Your task to perform on an android device: turn on bluetooth scan Image 0: 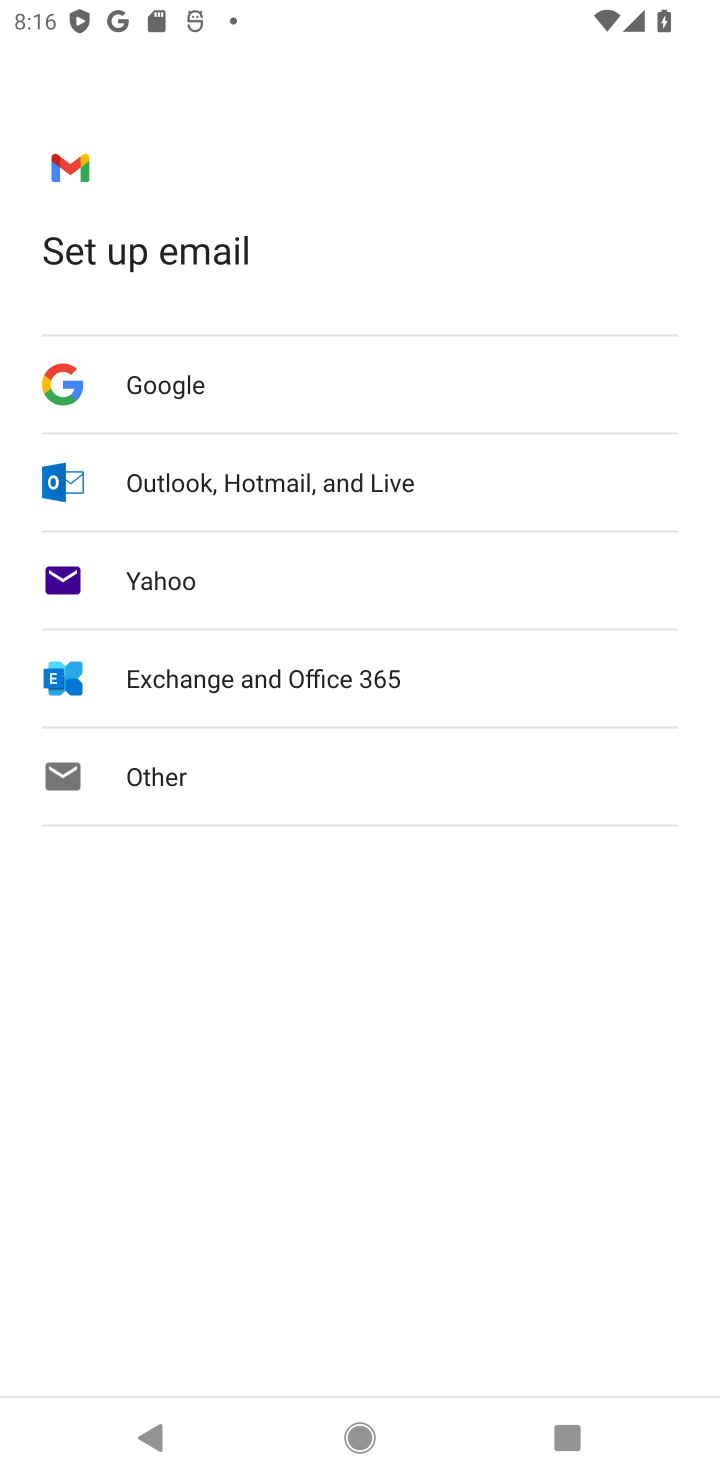
Step 0: click (351, 1440)
Your task to perform on an android device: turn on bluetooth scan Image 1: 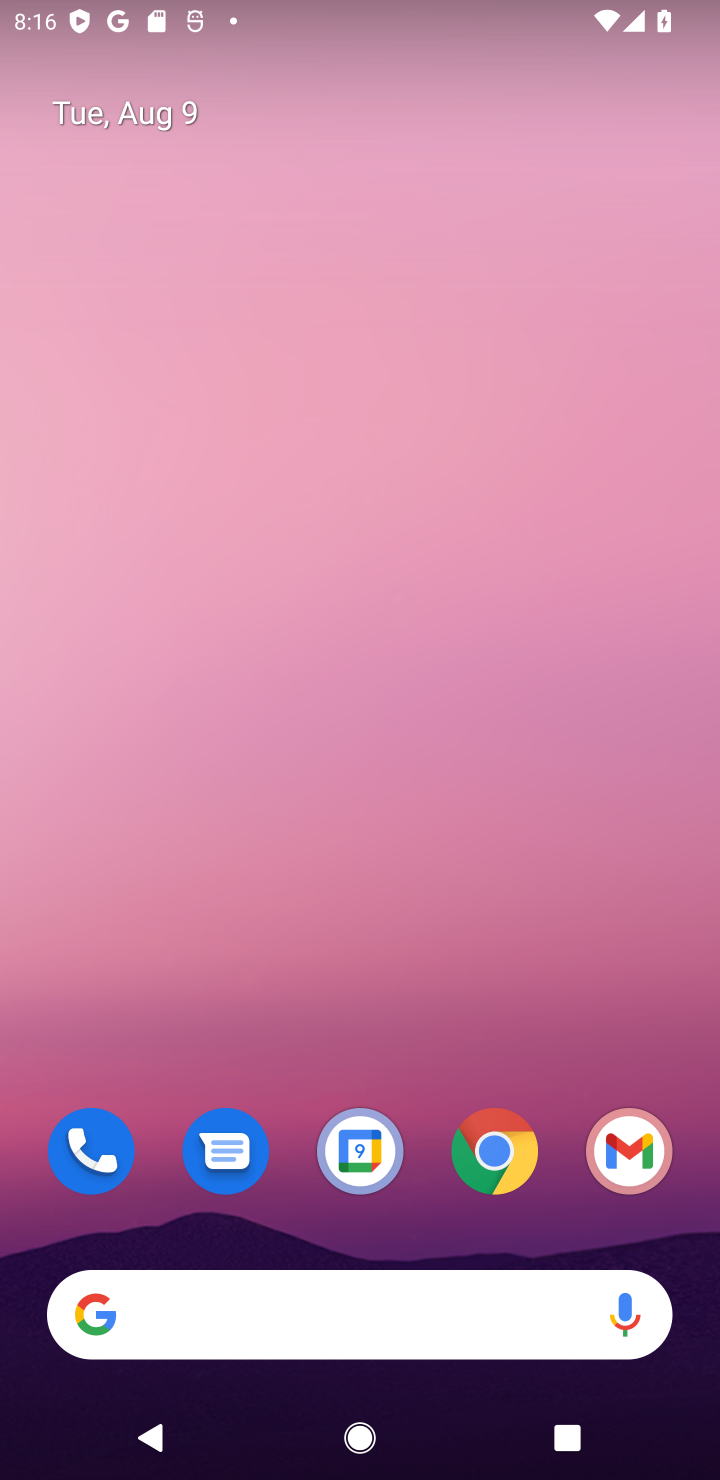
Step 1: drag from (278, 1238) to (404, 204)
Your task to perform on an android device: turn on bluetooth scan Image 2: 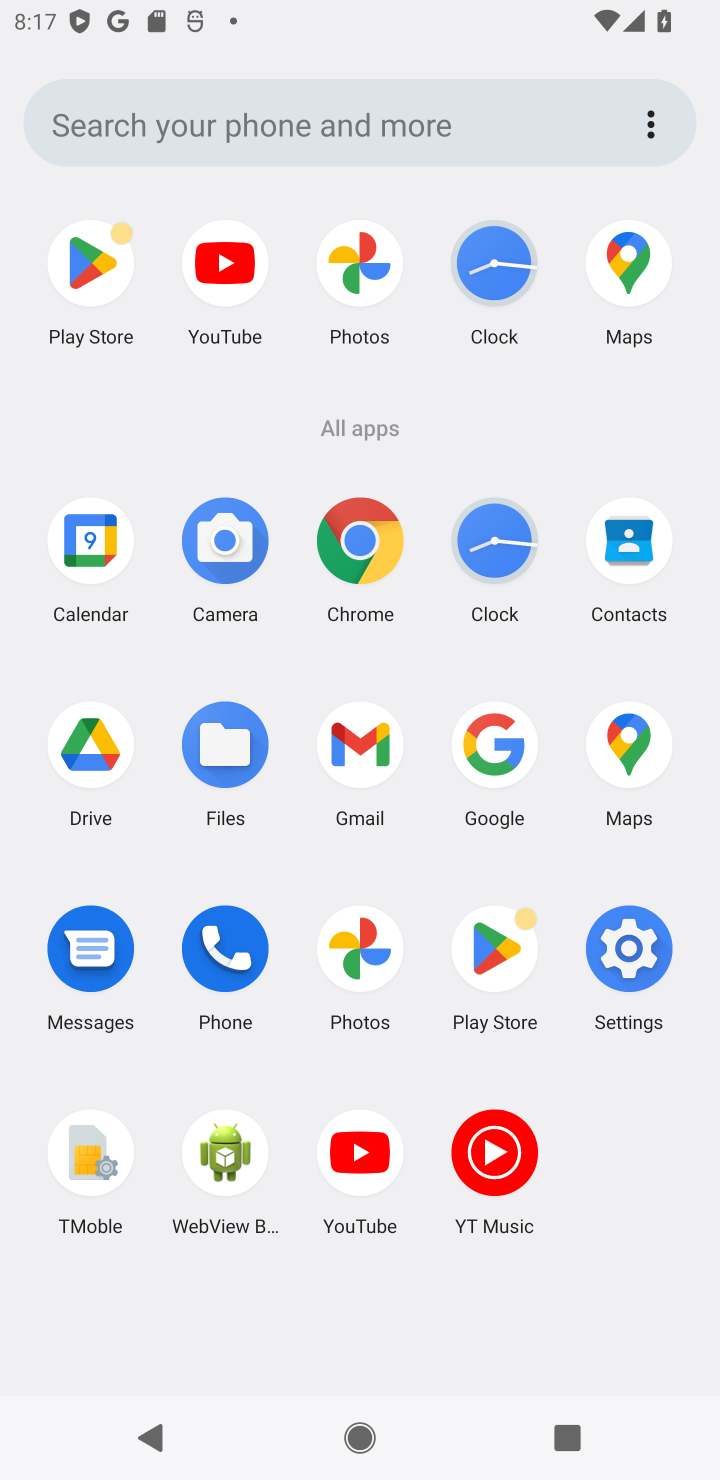
Step 2: click (627, 961)
Your task to perform on an android device: turn on bluetooth scan Image 3: 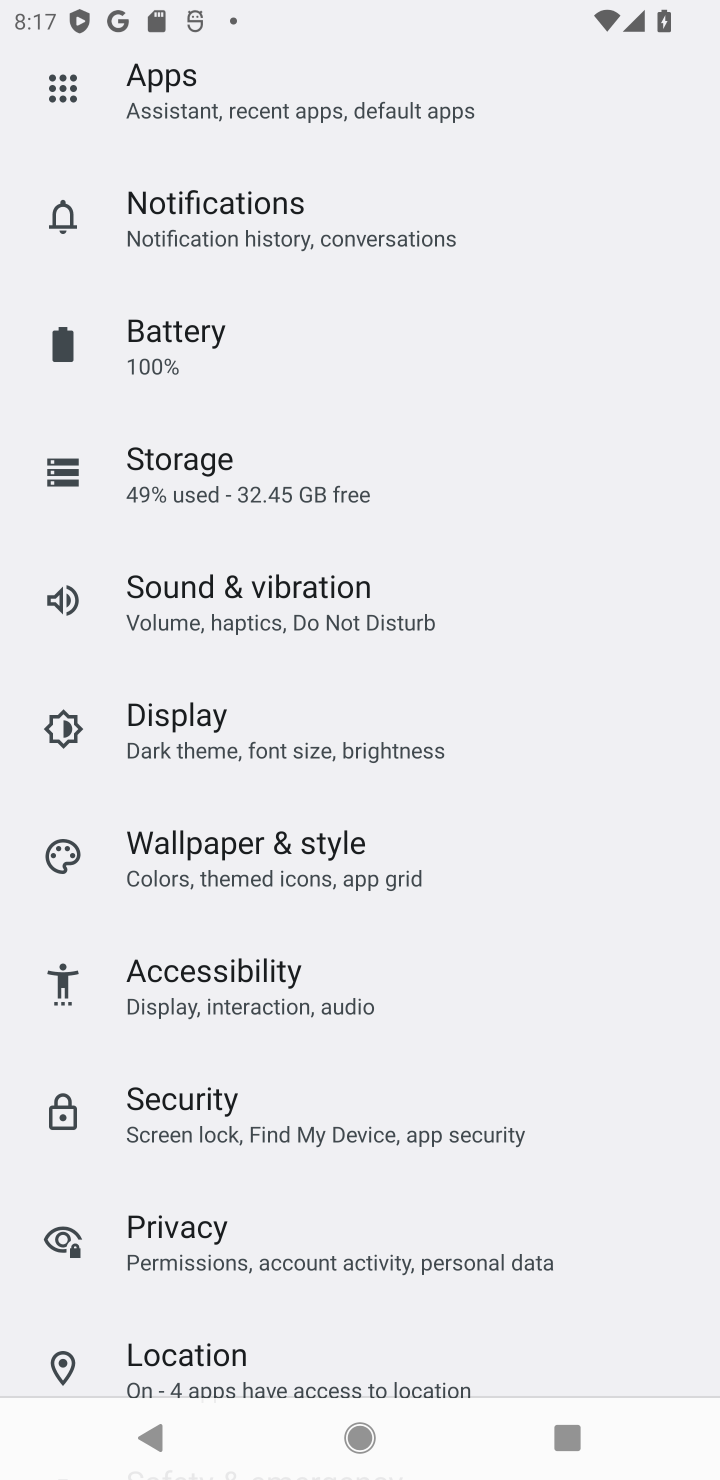
Step 3: drag from (550, 298) to (558, 846)
Your task to perform on an android device: turn on bluetooth scan Image 4: 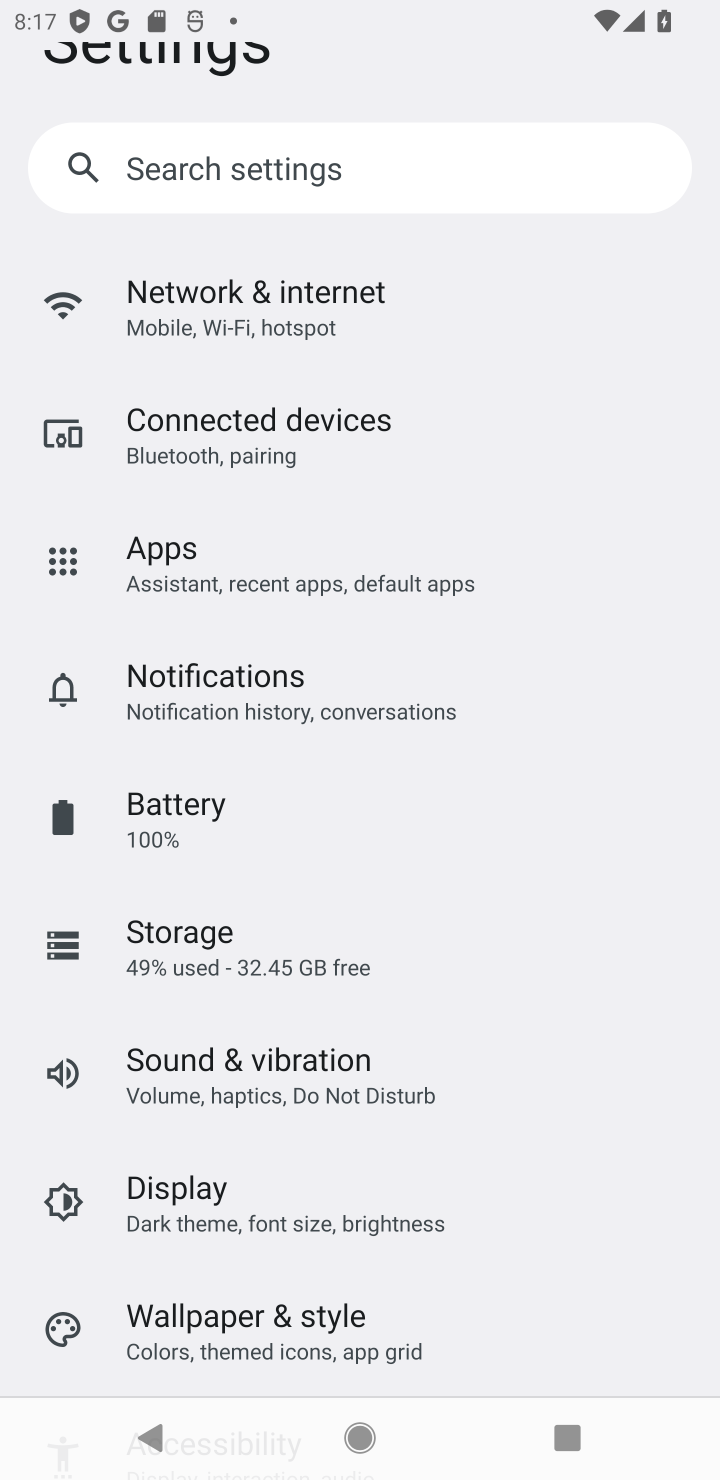
Step 4: click (266, 426)
Your task to perform on an android device: turn on bluetooth scan Image 5: 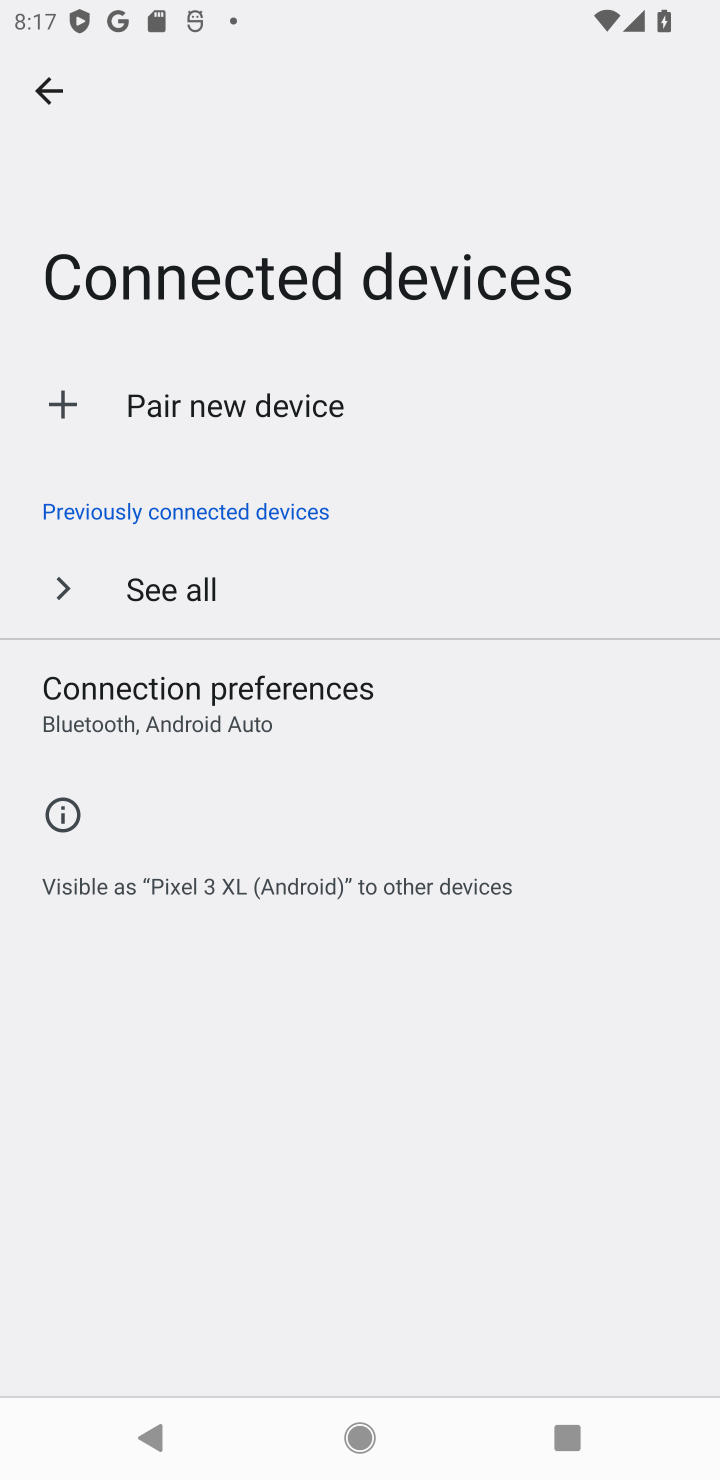
Step 5: click (106, 714)
Your task to perform on an android device: turn on bluetooth scan Image 6: 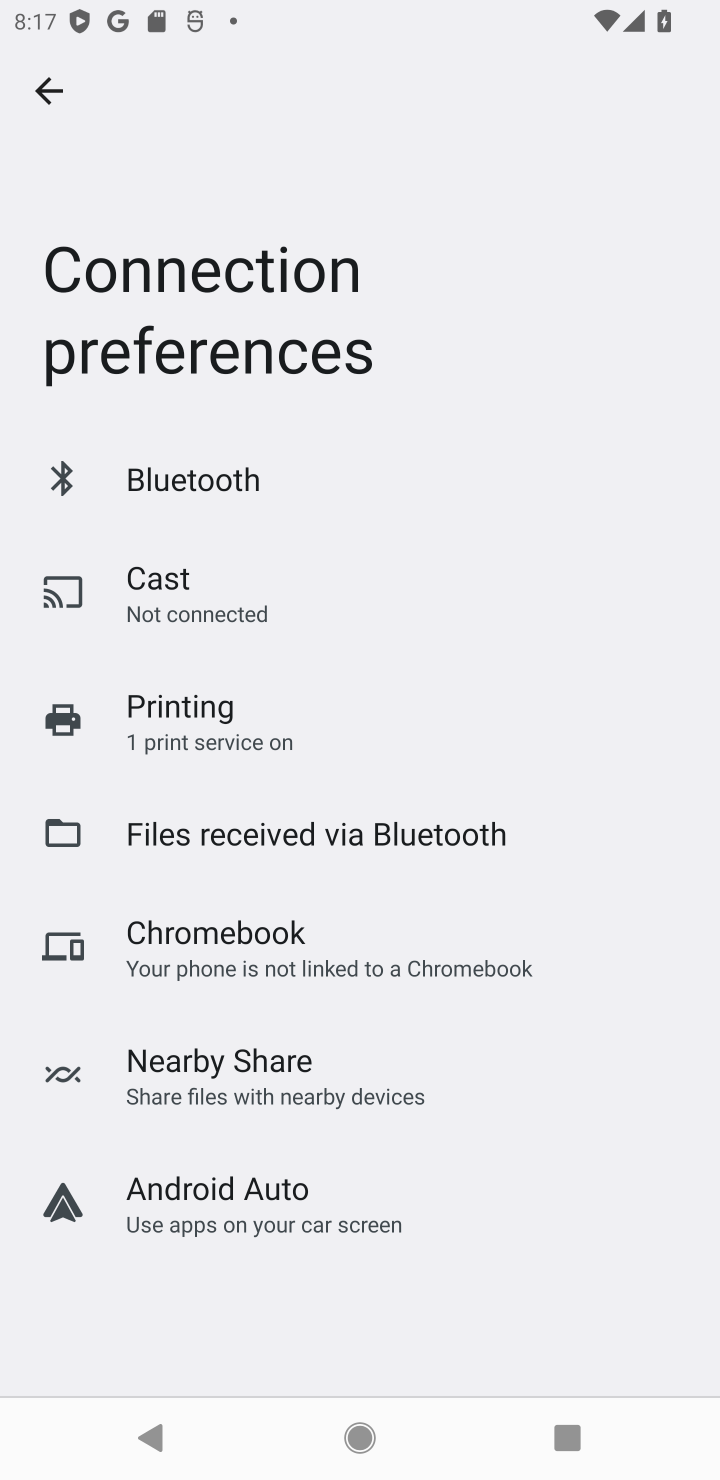
Step 6: click (158, 465)
Your task to perform on an android device: turn on bluetooth scan Image 7: 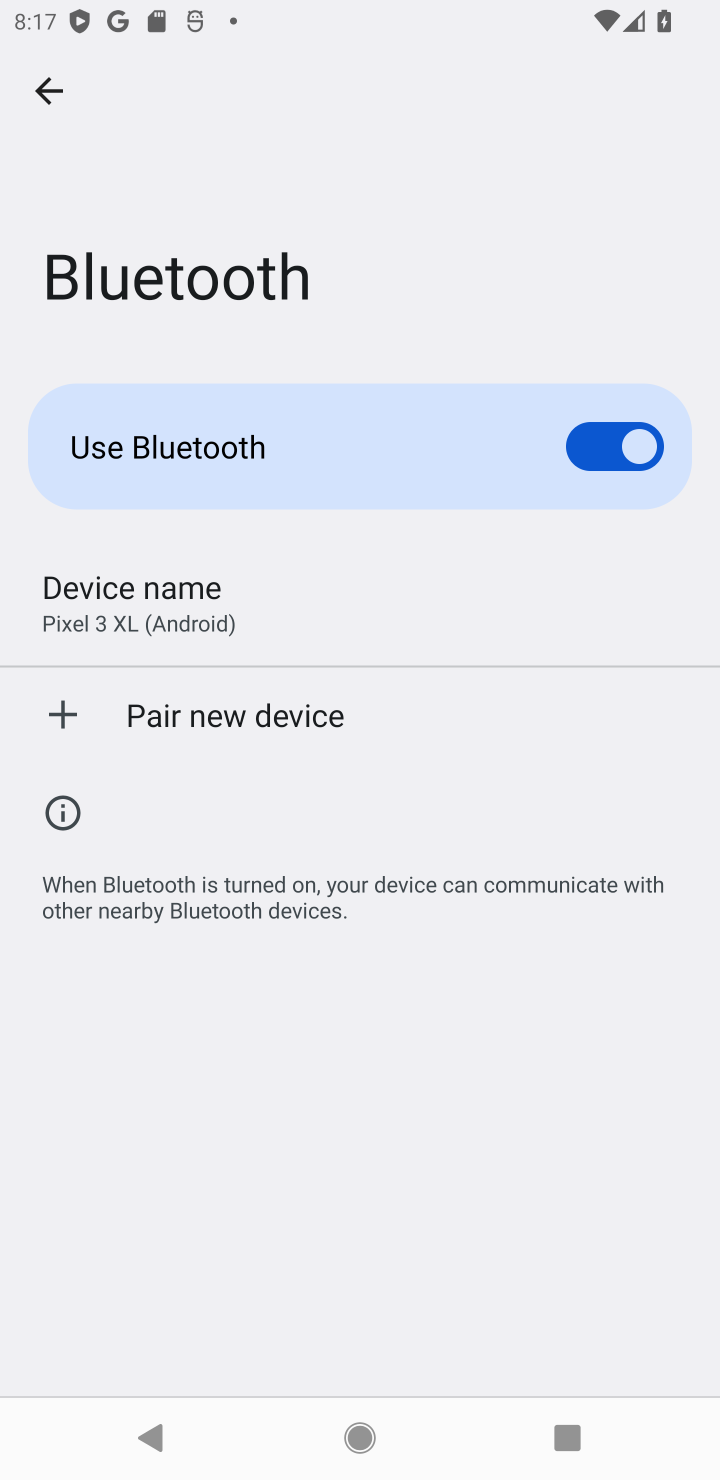
Step 7: click (44, 81)
Your task to perform on an android device: turn on bluetooth scan Image 8: 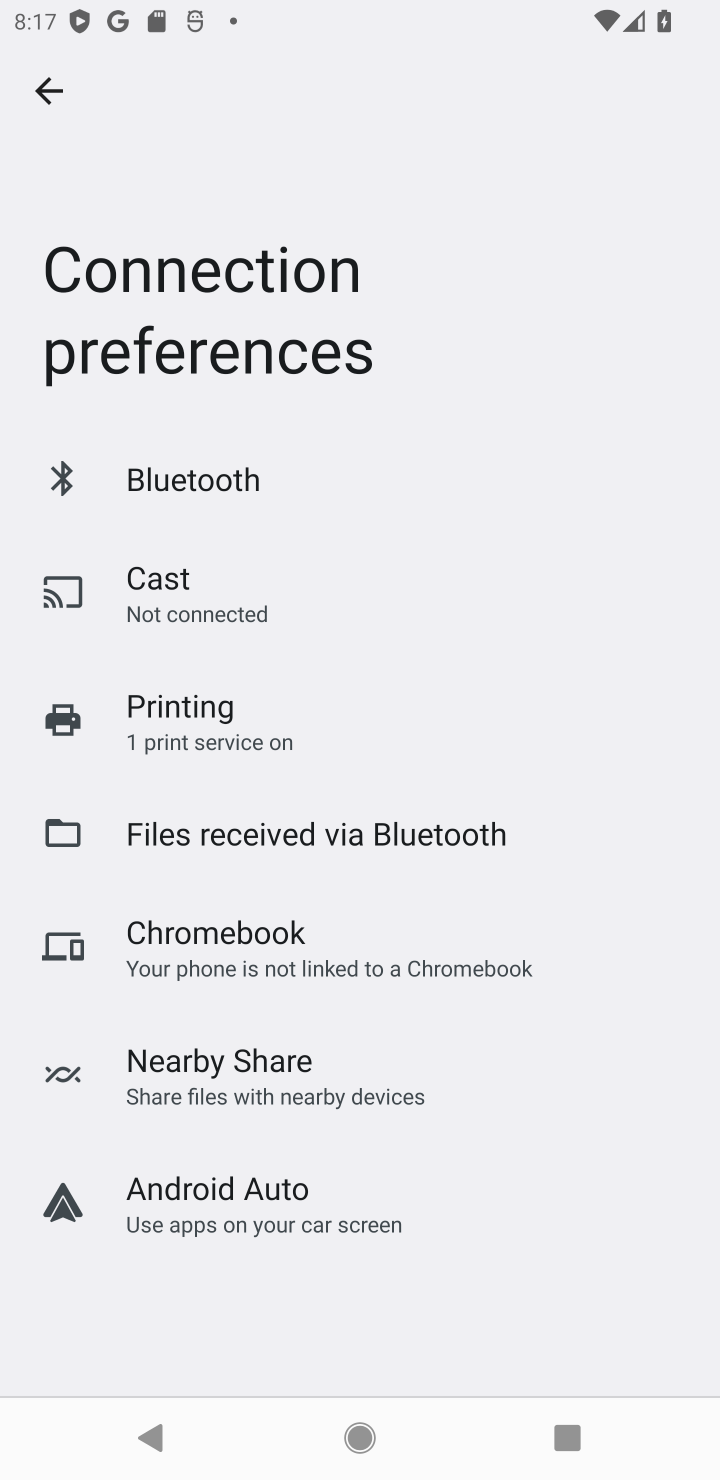
Step 8: click (51, 88)
Your task to perform on an android device: turn on bluetooth scan Image 9: 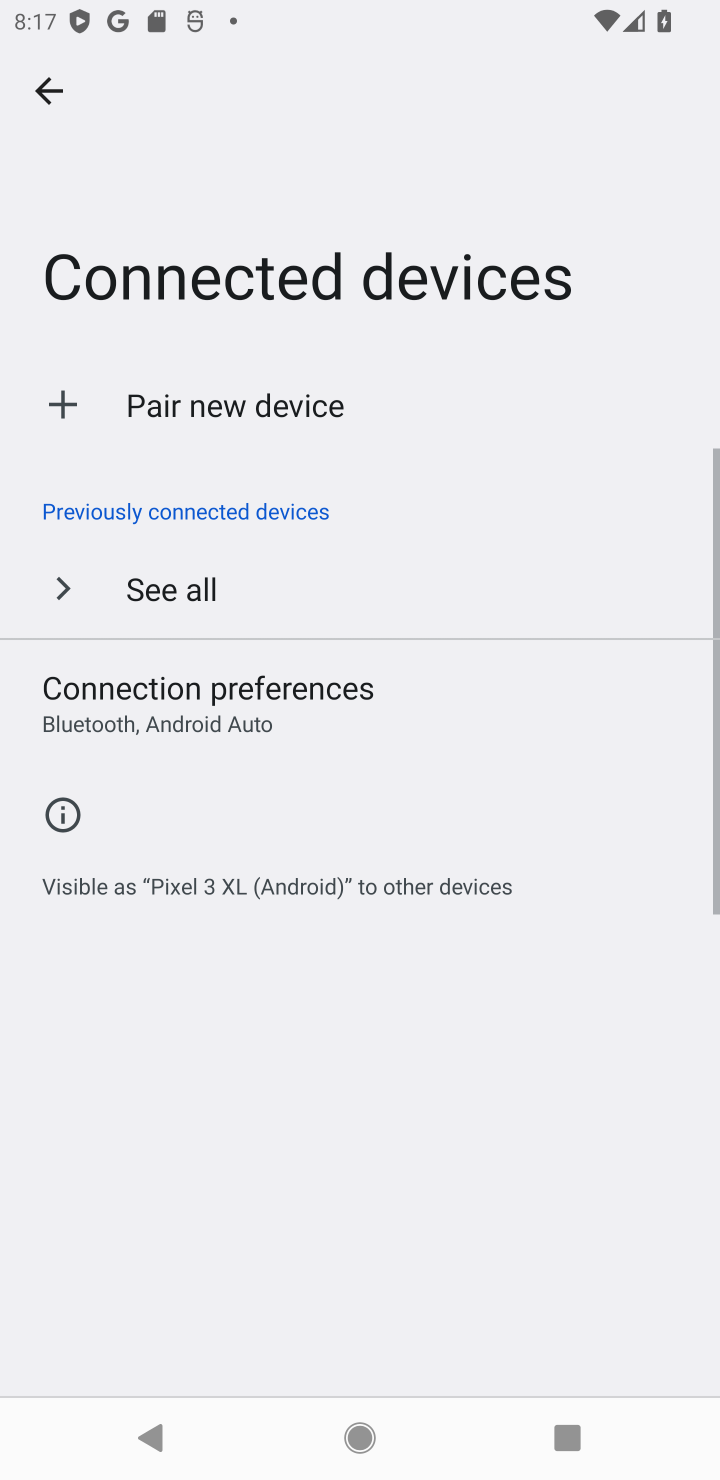
Step 9: click (51, 88)
Your task to perform on an android device: turn on bluetooth scan Image 10: 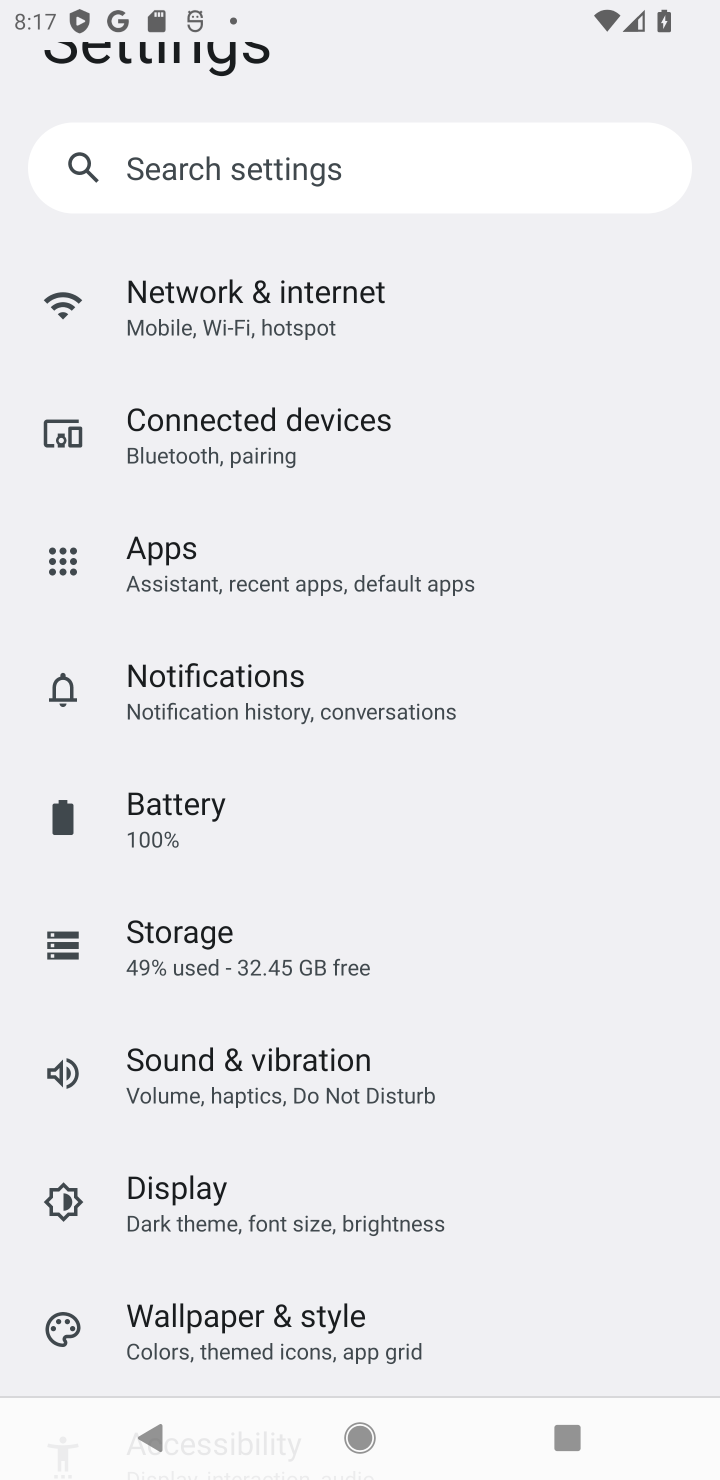
Step 10: click (226, 305)
Your task to perform on an android device: turn on bluetooth scan Image 11: 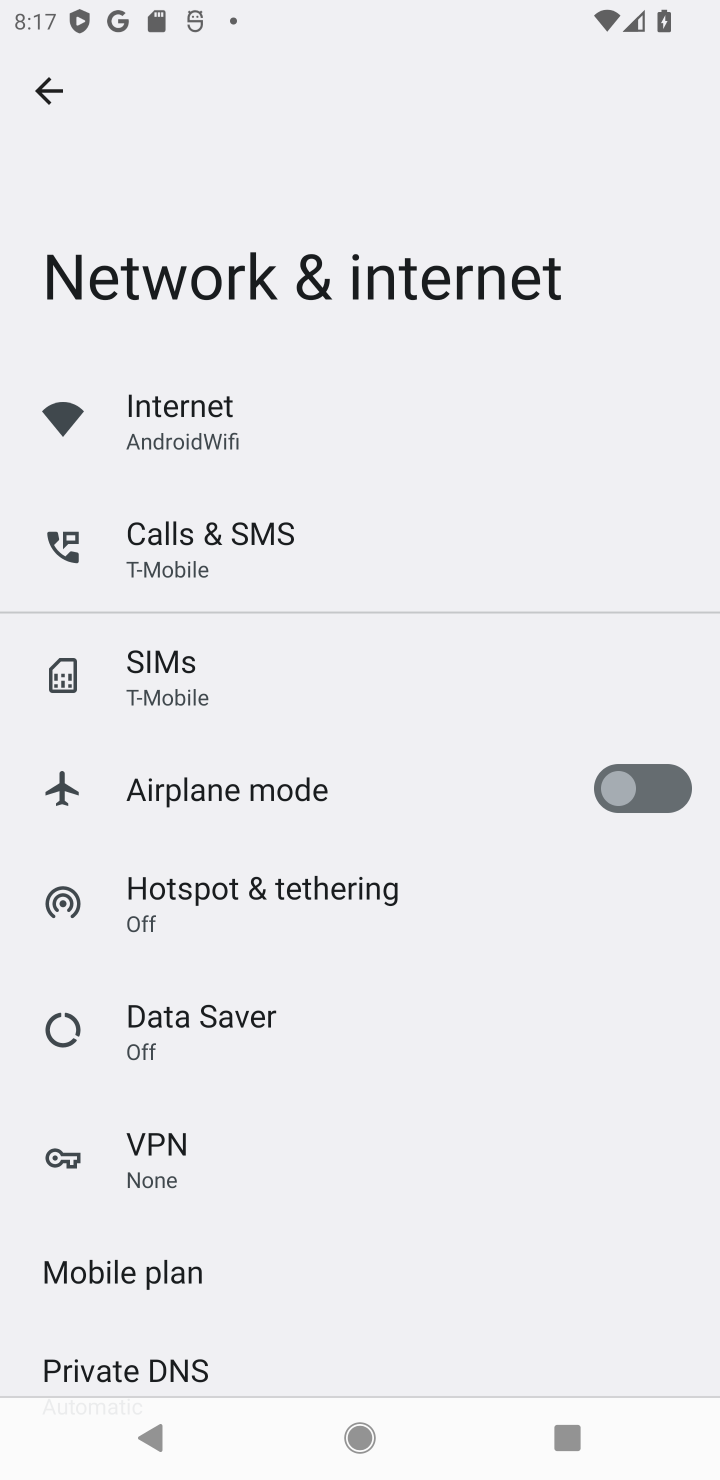
Step 11: drag from (366, 1142) to (379, 267)
Your task to perform on an android device: turn on bluetooth scan Image 12: 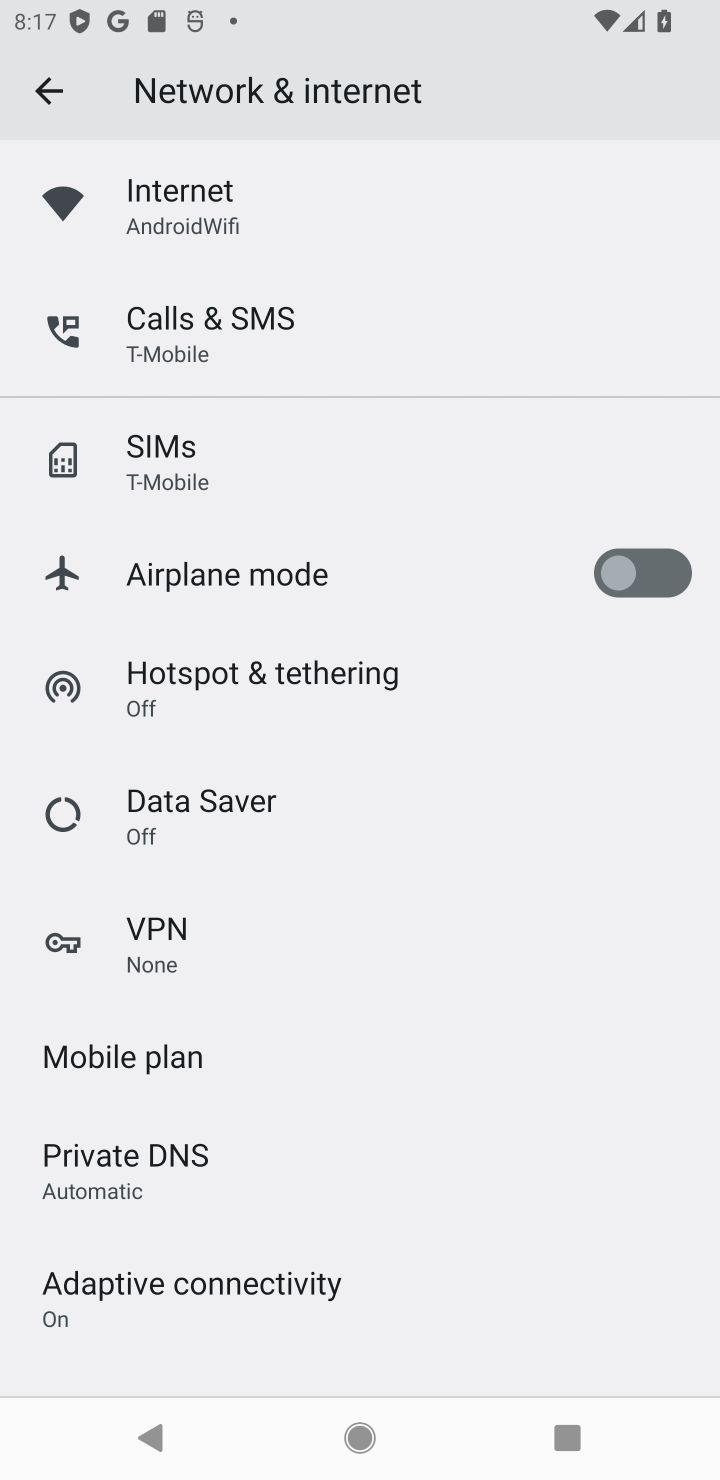
Step 12: drag from (449, 344) to (405, 1444)
Your task to perform on an android device: turn on bluetooth scan Image 13: 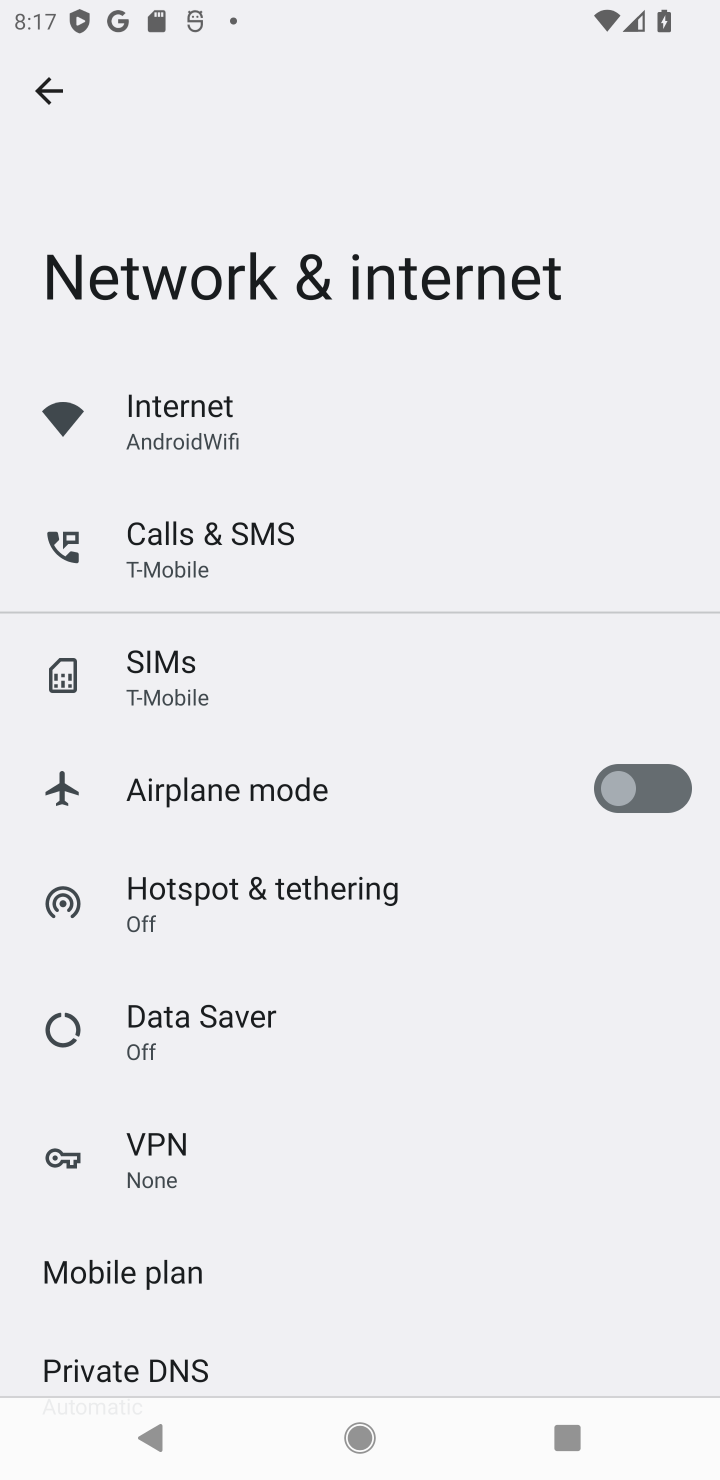
Step 13: click (45, 81)
Your task to perform on an android device: turn on bluetooth scan Image 14: 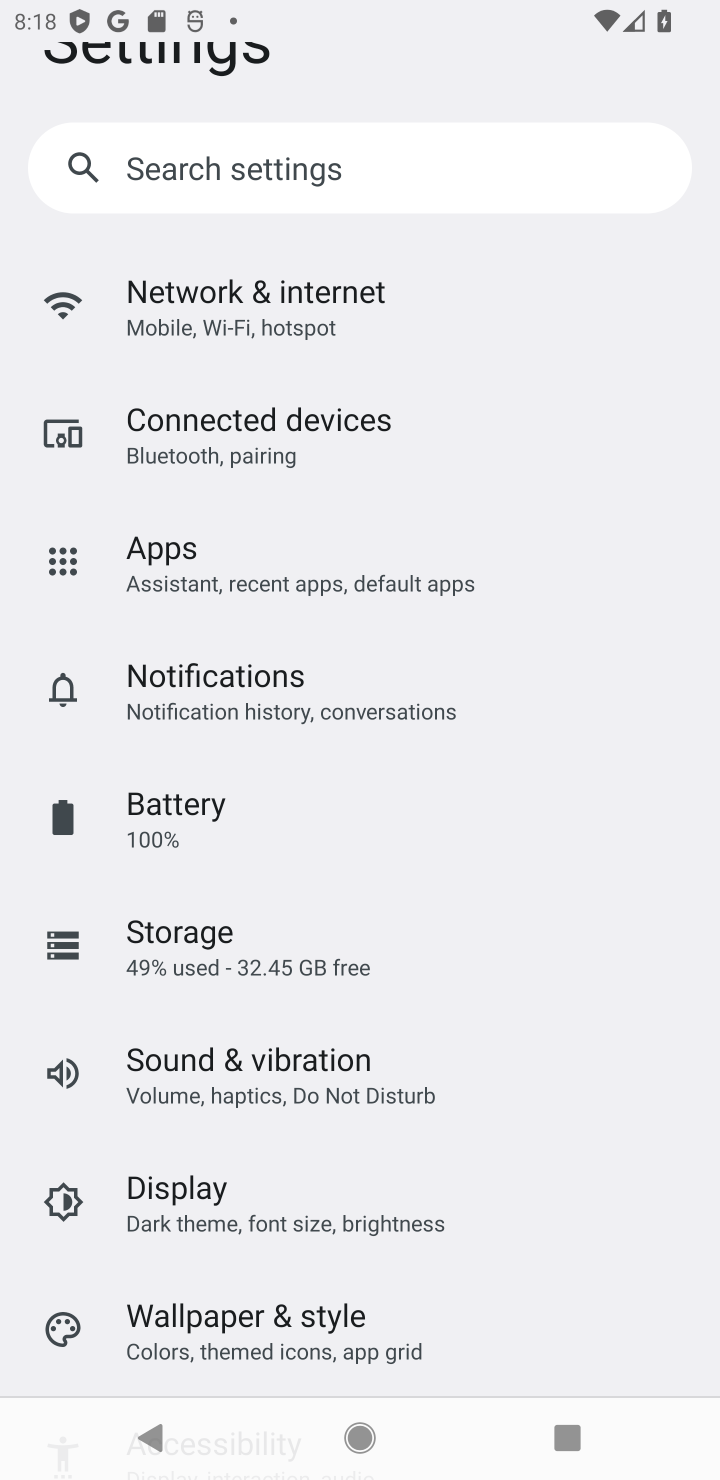
Step 14: click (198, 167)
Your task to perform on an android device: turn on bluetooth scan Image 15: 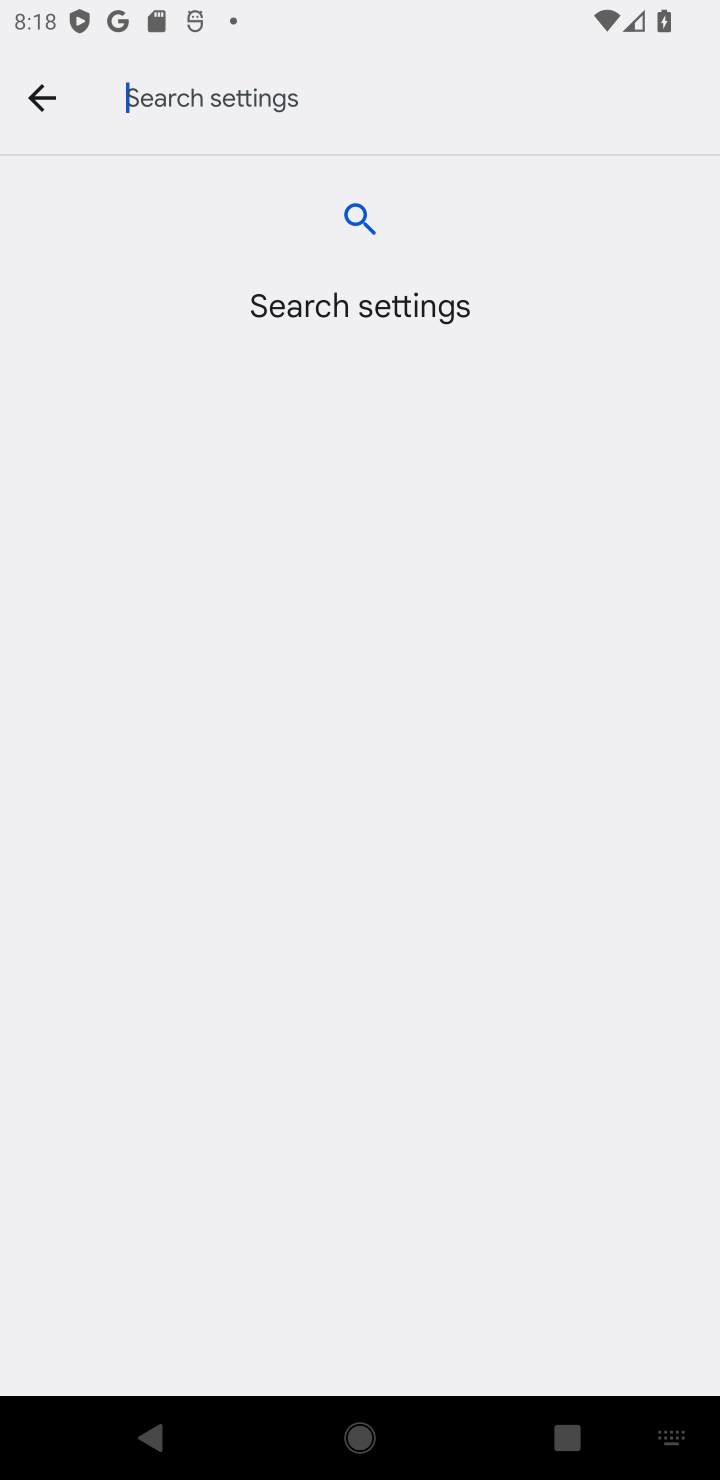
Step 15: type "bluetooth scan"
Your task to perform on an android device: turn on bluetooth scan Image 16: 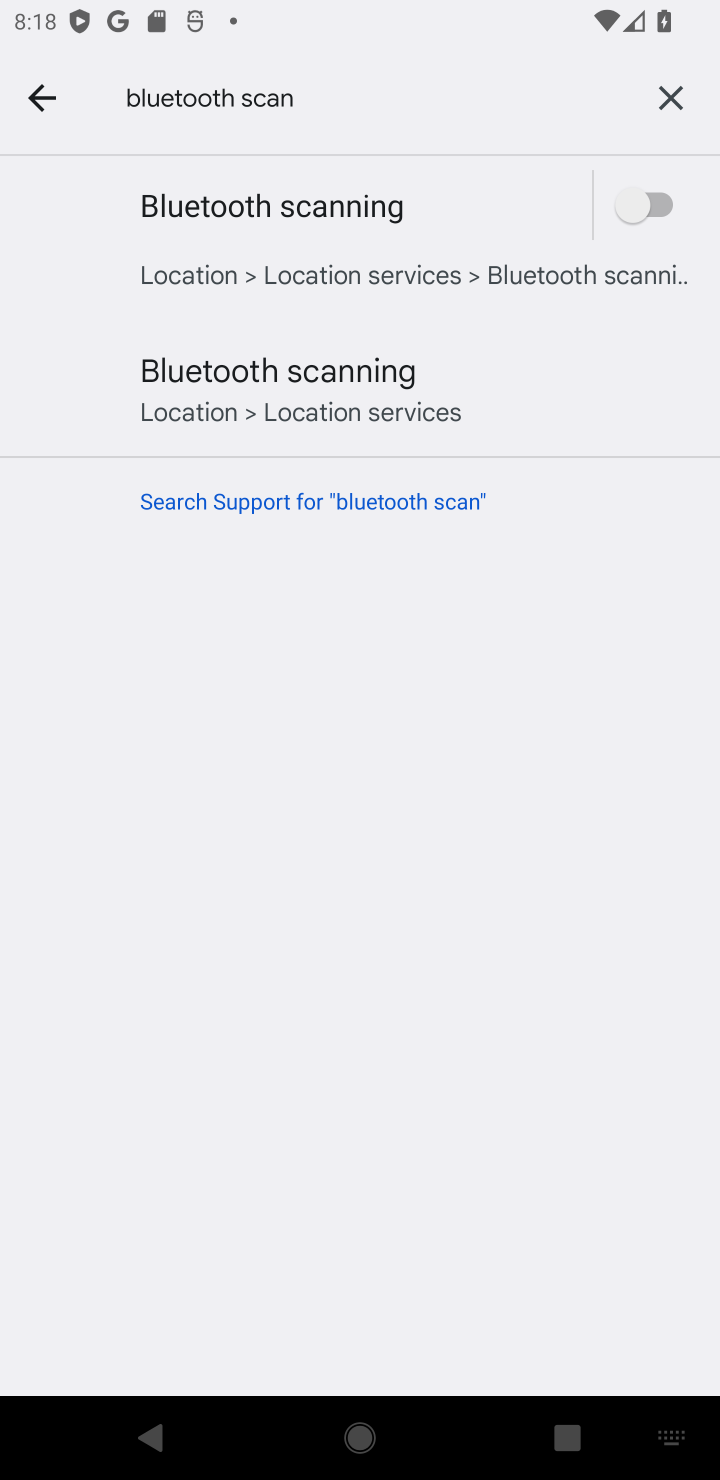
Step 16: click (642, 199)
Your task to perform on an android device: turn on bluetooth scan Image 17: 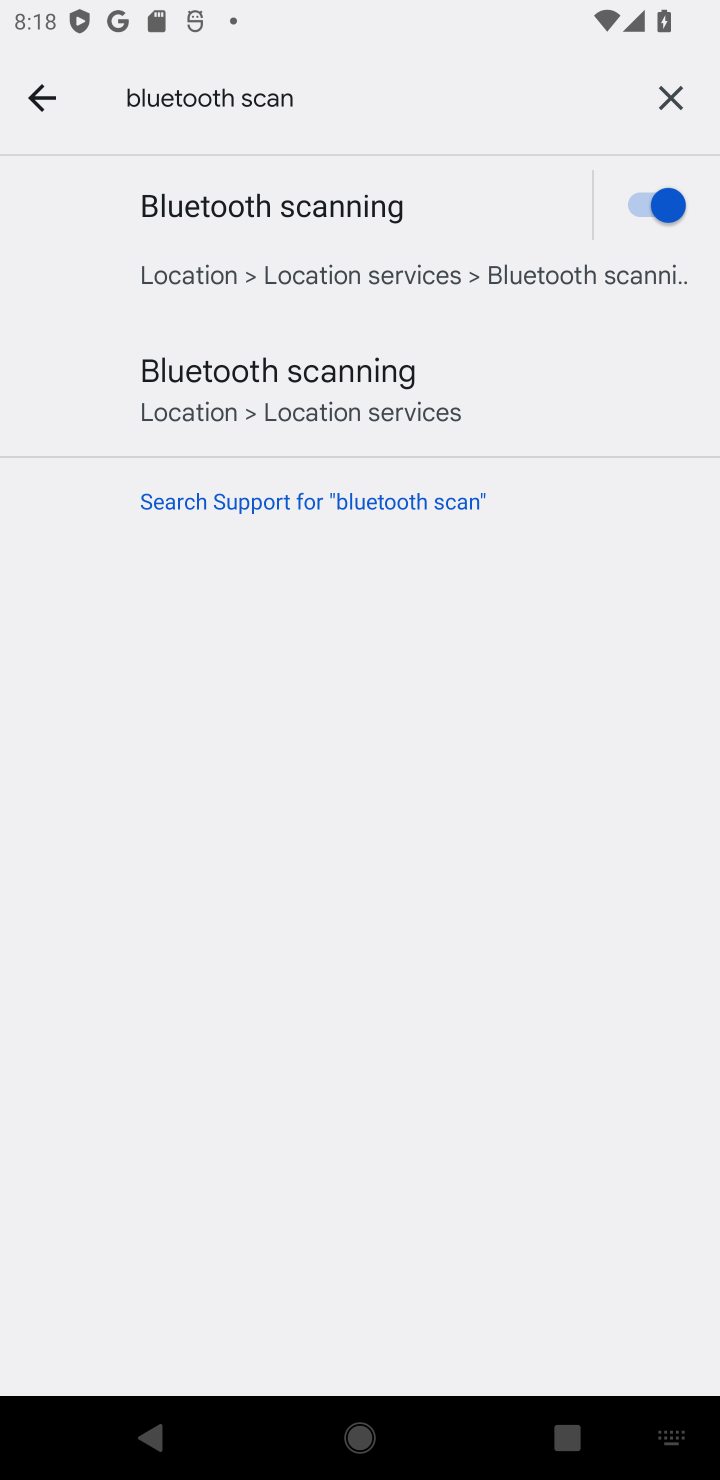
Step 17: task complete